Your task to perform on an android device: toggle data saver in the chrome app Image 0: 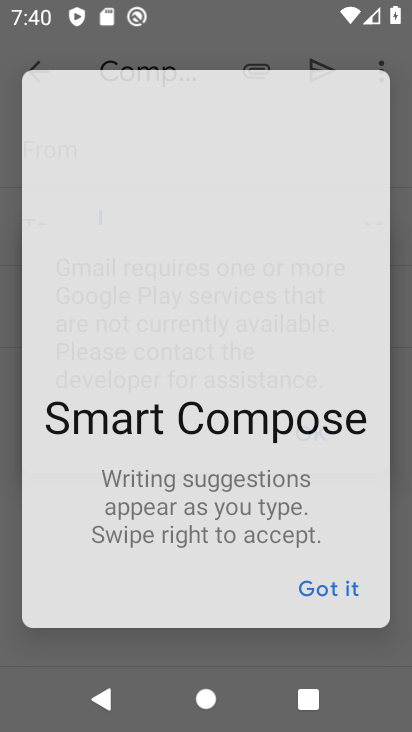
Step 0: press back button
Your task to perform on an android device: toggle data saver in the chrome app Image 1: 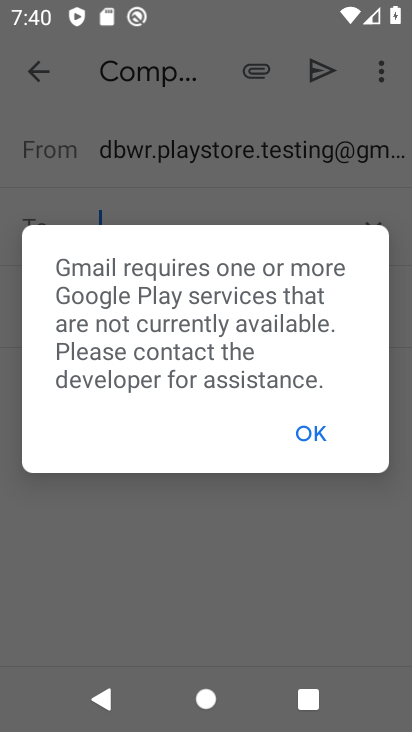
Step 1: press back button
Your task to perform on an android device: toggle data saver in the chrome app Image 2: 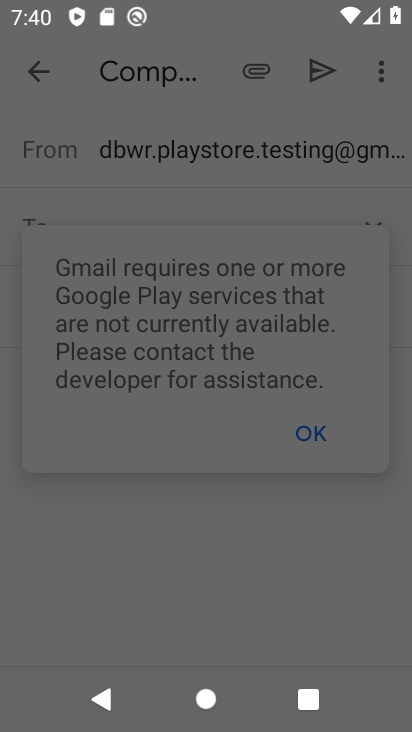
Step 2: press back button
Your task to perform on an android device: toggle data saver in the chrome app Image 3: 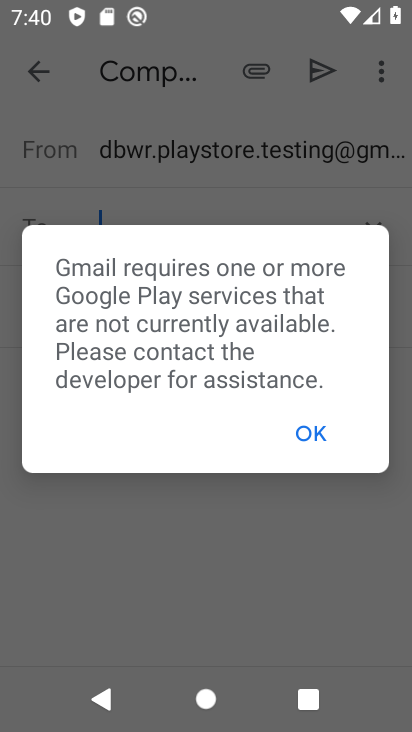
Step 3: press home button
Your task to perform on an android device: toggle data saver in the chrome app Image 4: 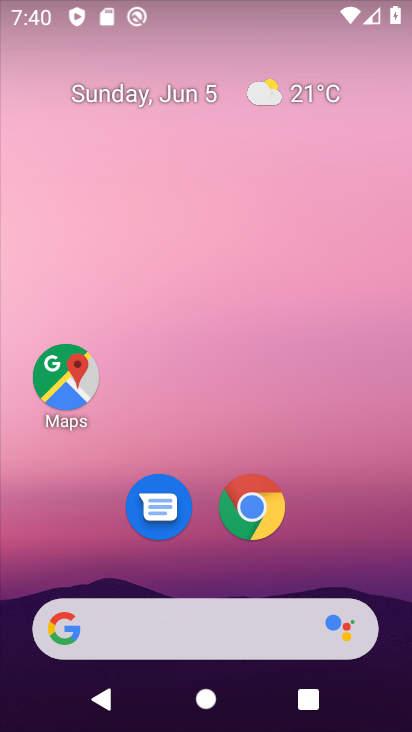
Step 4: drag from (337, 510) to (228, 1)
Your task to perform on an android device: toggle data saver in the chrome app Image 5: 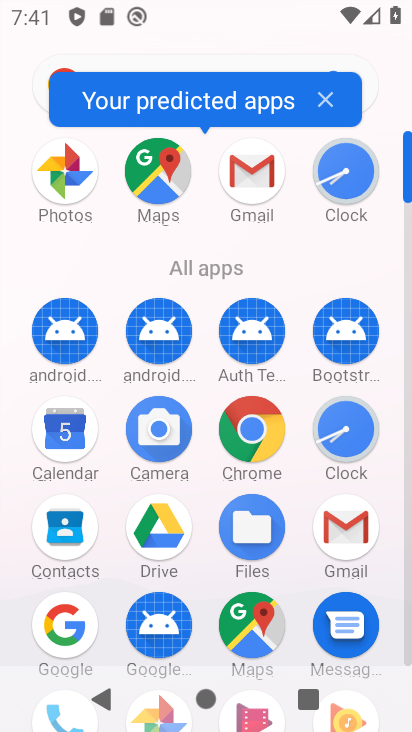
Step 5: click (249, 426)
Your task to perform on an android device: toggle data saver in the chrome app Image 6: 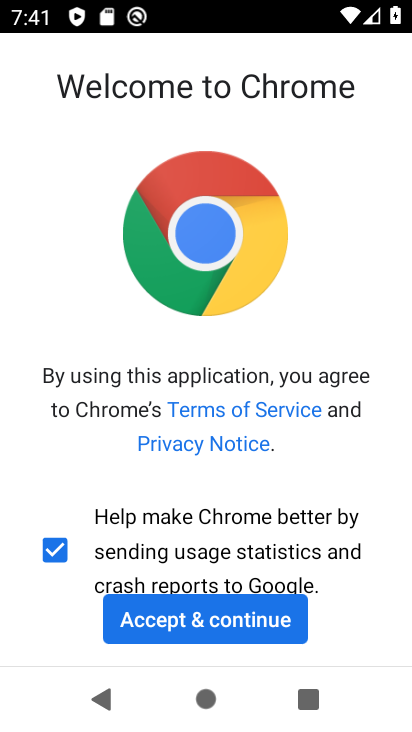
Step 6: click (225, 618)
Your task to perform on an android device: toggle data saver in the chrome app Image 7: 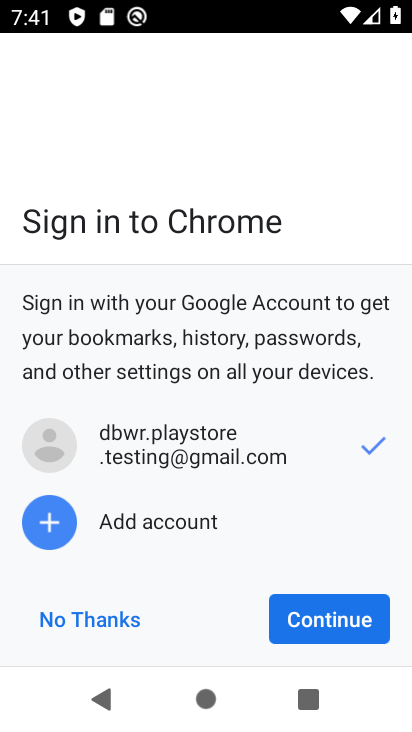
Step 7: click (335, 620)
Your task to perform on an android device: toggle data saver in the chrome app Image 8: 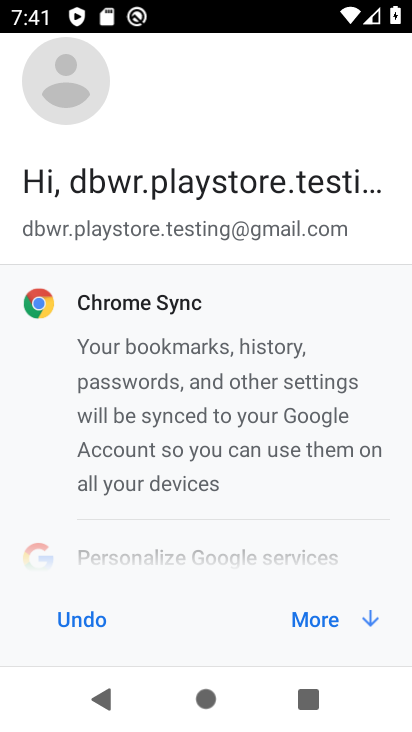
Step 8: click (330, 620)
Your task to perform on an android device: toggle data saver in the chrome app Image 9: 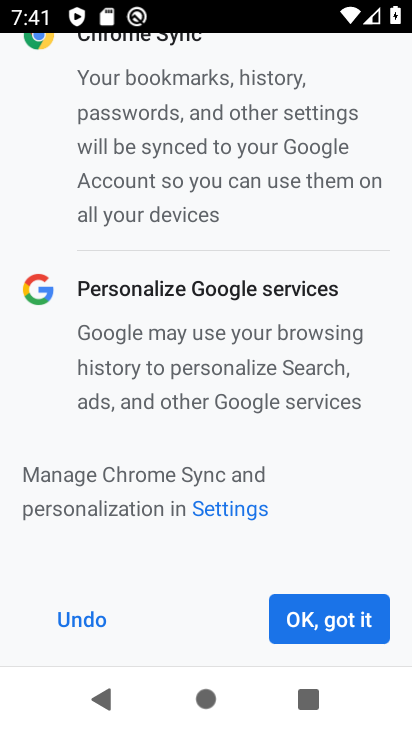
Step 9: click (330, 620)
Your task to perform on an android device: toggle data saver in the chrome app Image 10: 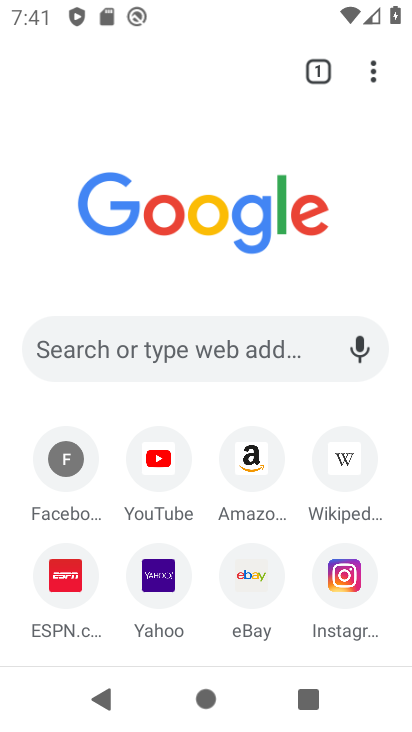
Step 10: drag from (372, 74) to (179, 508)
Your task to perform on an android device: toggle data saver in the chrome app Image 11: 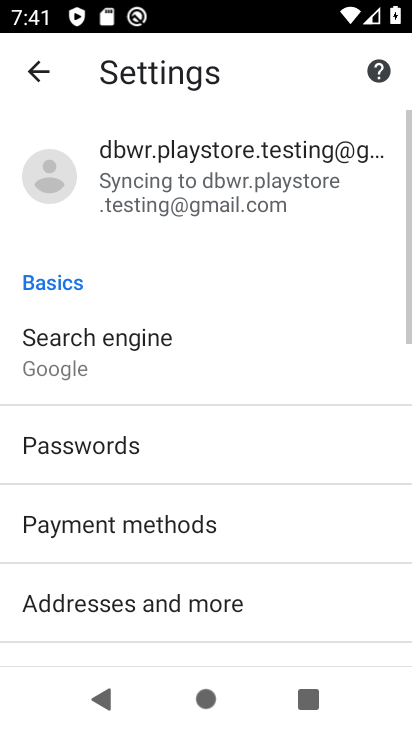
Step 11: drag from (215, 549) to (228, 213)
Your task to perform on an android device: toggle data saver in the chrome app Image 12: 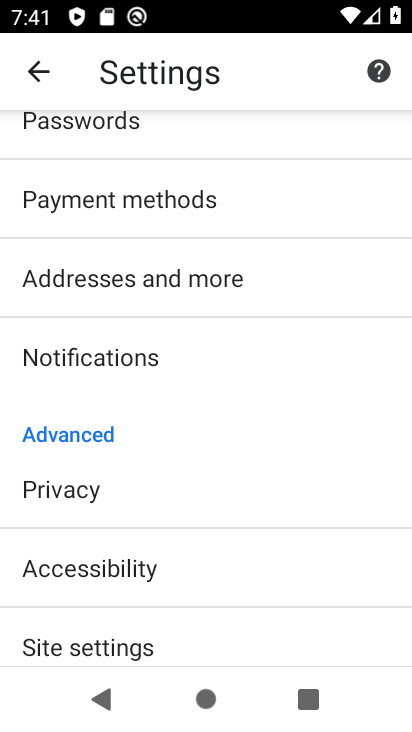
Step 12: drag from (207, 552) to (267, 198)
Your task to perform on an android device: toggle data saver in the chrome app Image 13: 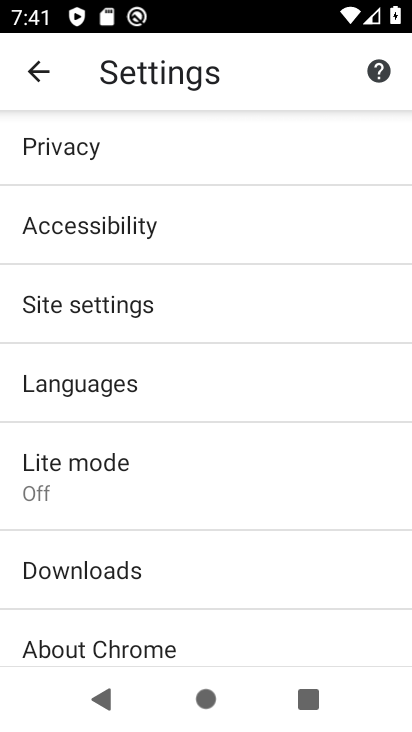
Step 13: click (164, 475)
Your task to perform on an android device: toggle data saver in the chrome app Image 14: 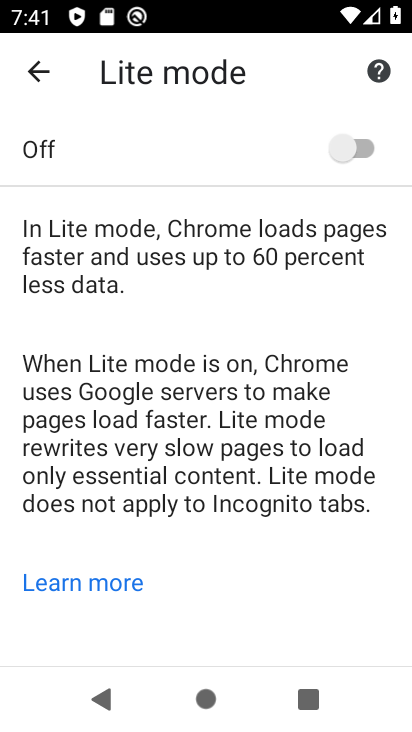
Step 14: click (341, 149)
Your task to perform on an android device: toggle data saver in the chrome app Image 15: 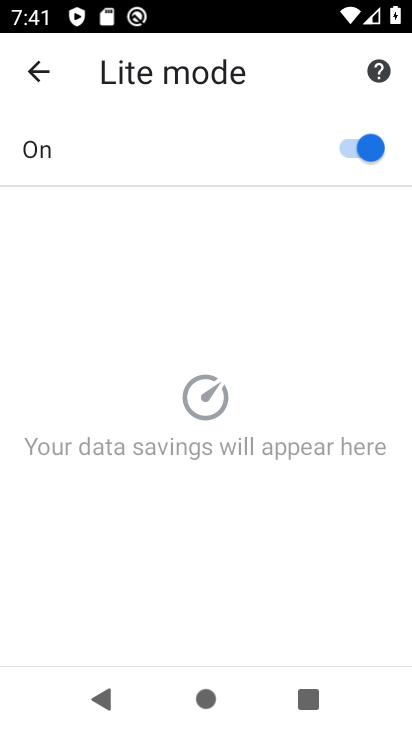
Step 15: task complete